Your task to perform on an android device: Go to network settings Image 0: 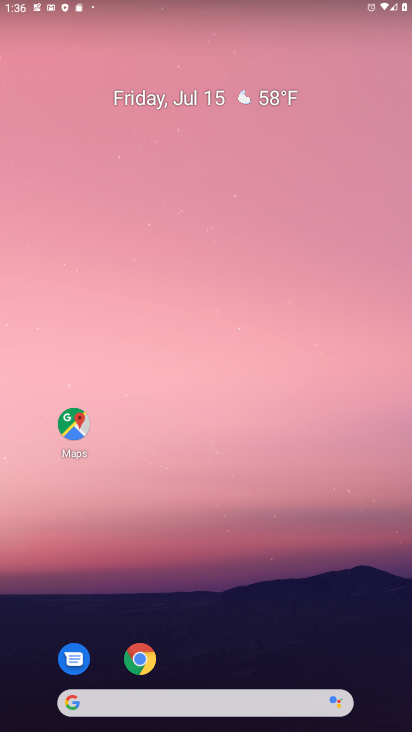
Step 0: drag from (224, 725) to (215, 199)
Your task to perform on an android device: Go to network settings Image 1: 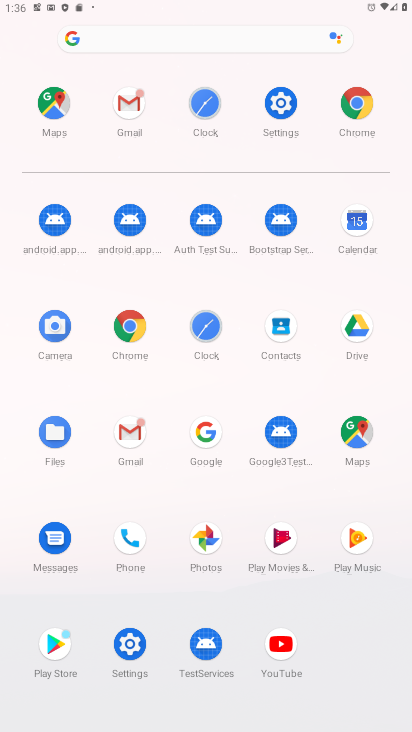
Step 1: click (287, 100)
Your task to perform on an android device: Go to network settings Image 2: 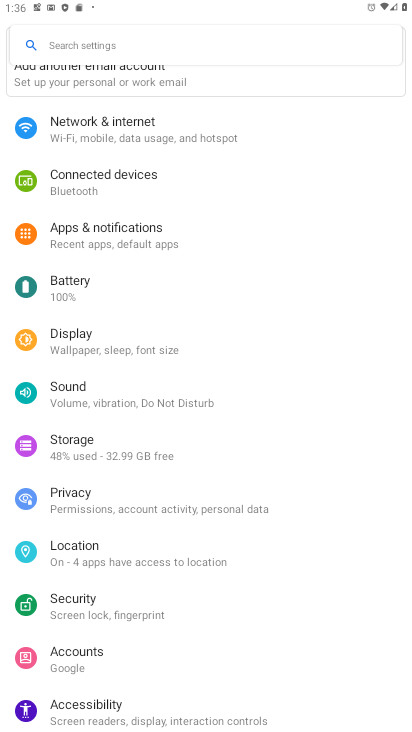
Step 2: click (105, 127)
Your task to perform on an android device: Go to network settings Image 3: 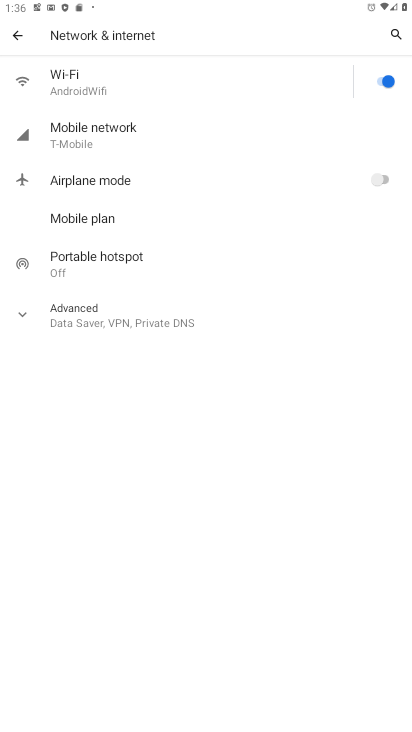
Step 3: click (113, 127)
Your task to perform on an android device: Go to network settings Image 4: 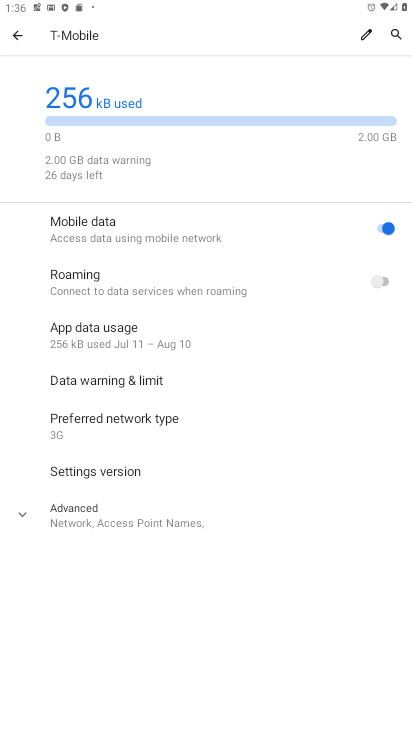
Step 4: task complete